Your task to perform on an android device: clear history in the chrome app Image 0: 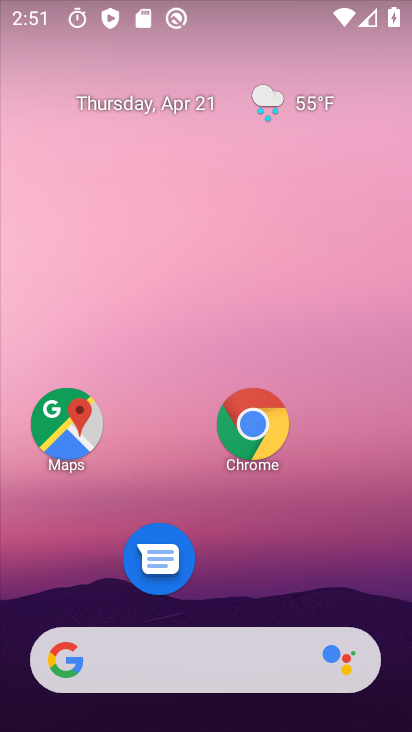
Step 0: click (252, 423)
Your task to perform on an android device: clear history in the chrome app Image 1: 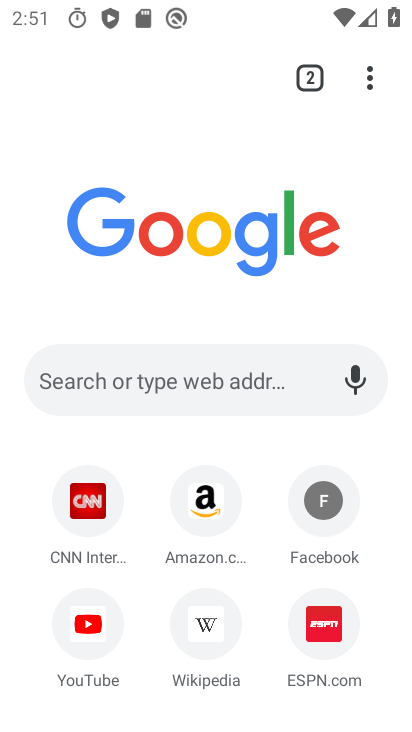
Step 1: click (363, 78)
Your task to perform on an android device: clear history in the chrome app Image 2: 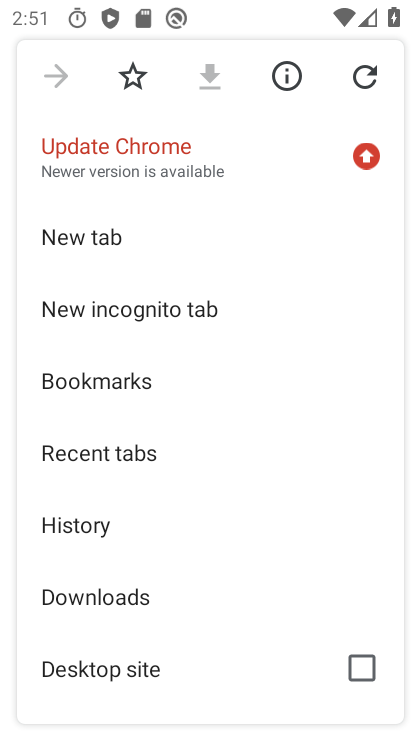
Step 2: drag from (224, 623) to (224, 444)
Your task to perform on an android device: clear history in the chrome app Image 3: 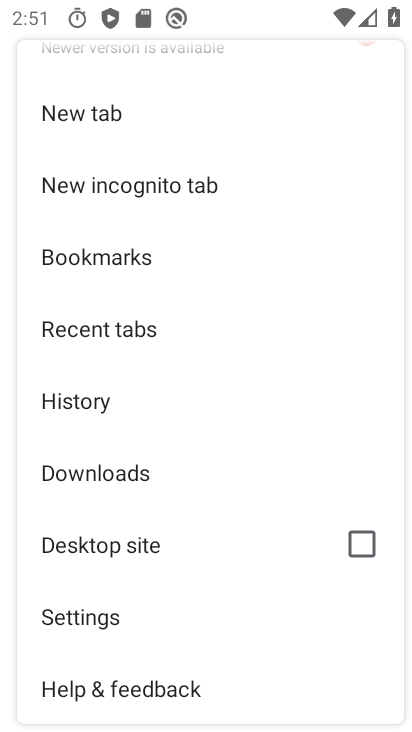
Step 3: click (95, 401)
Your task to perform on an android device: clear history in the chrome app Image 4: 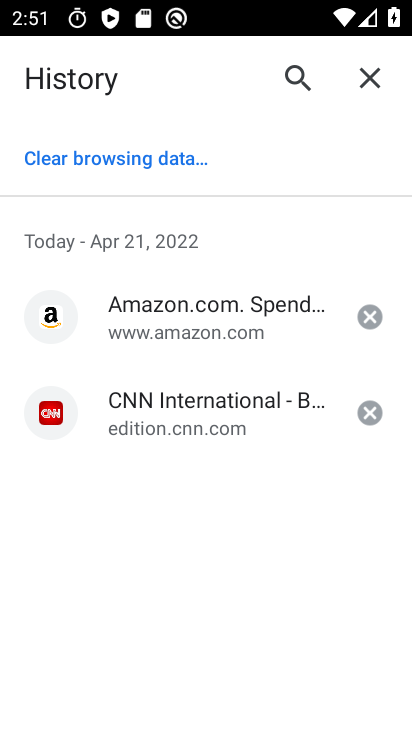
Step 4: click (144, 162)
Your task to perform on an android device: clear history in the chrome app Image 5: 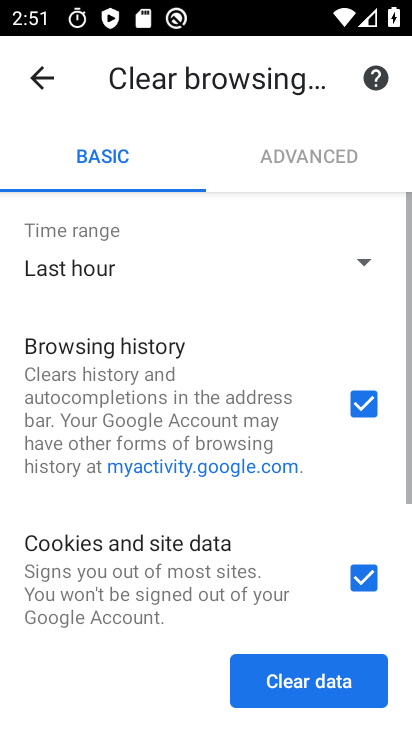
Step 5: click (368, 571)
Your task to perform on an android device: clear history in the chrome app Image 6: 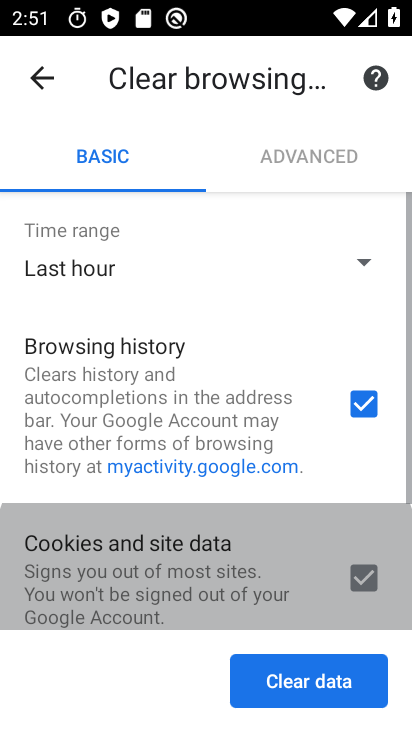
Step 6: drag from (284, 522) to (219, 233)
Your task to perform on an android device: clear history in the chrome app Image 7: 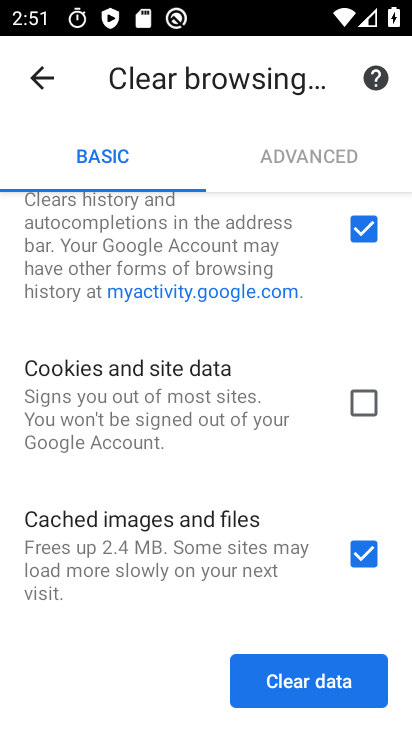
Step 7: click (373, 562)
Your task to perform on an android device: clear history in the chrome app Image 8: 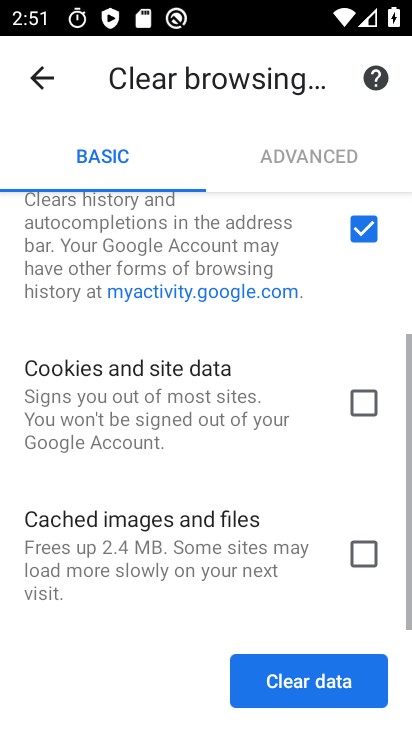
Step 8: click (301, 686)
Your task to perform on an android device: clear history in the chrome app Image 9: 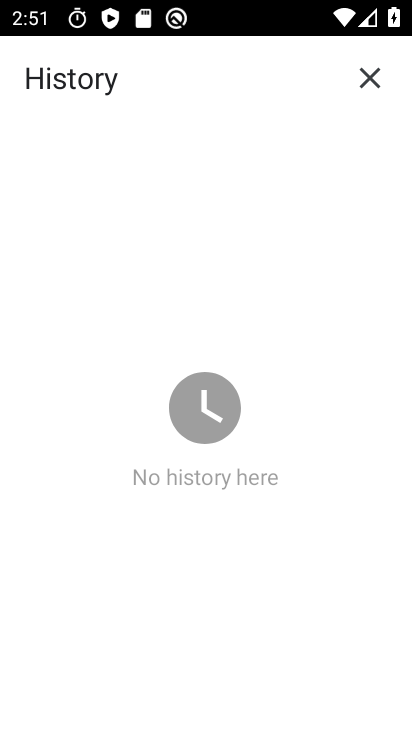
Step 9: task complete